Your task to perform on an android device: Go to Reddit.com Image 0: 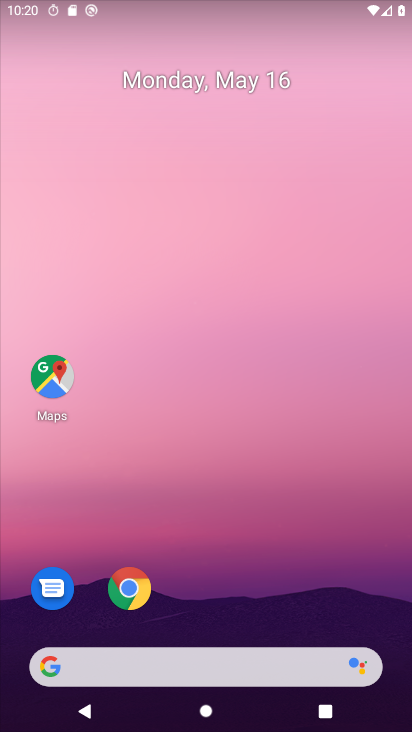
Step 0: click (126, 588)
Your task to perform on an android device: Go to Reddit.com Image 1: 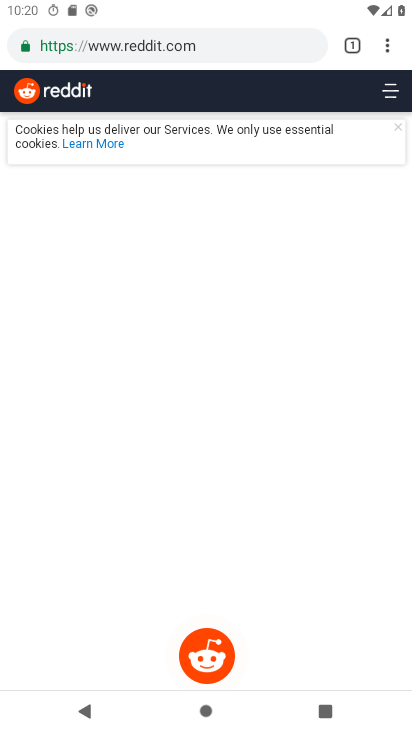
Step 1: task complete